Your task to perform on an android device: Search for seafood restaurants on Google Maps Image 0: 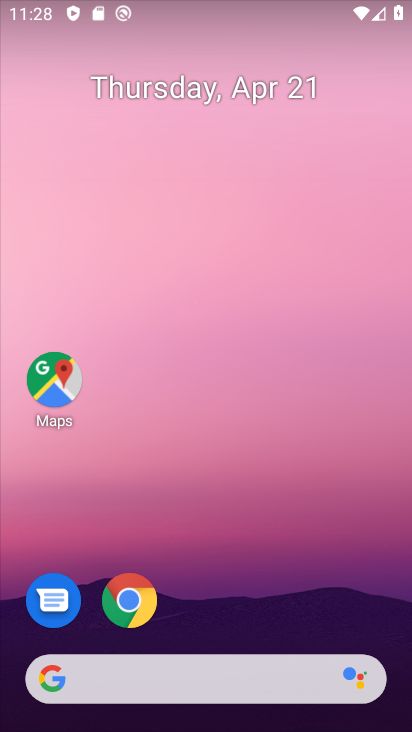
Step 0: click (66, 389)
Your task to perform on an android device: Search for seafood restaurants on Google Maps Image 1: 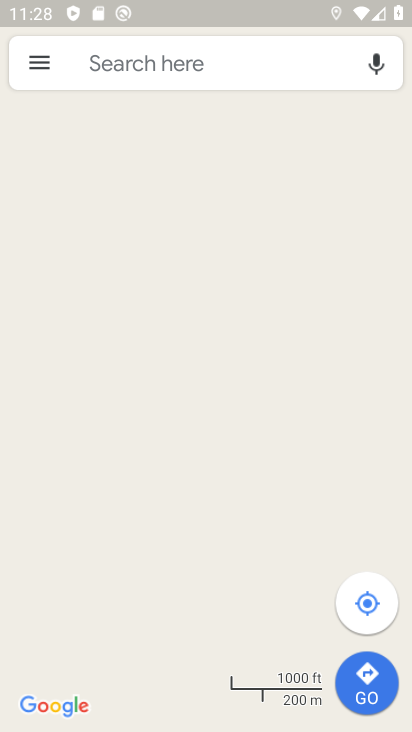
Step 1: click (233, 64)
Your task to perform on an android device: Search for seafood restaurants on Google Maps Image 2: 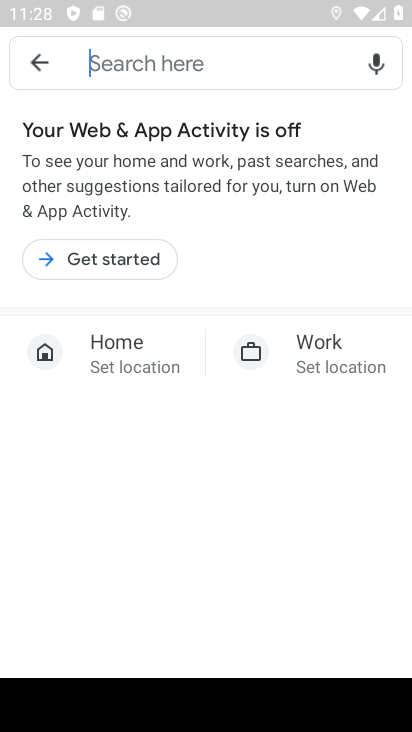
Step 2: type "seafood restaurants"
Your task to perform on an android device: Search for seafood restaurants on Google Maps Image 3: 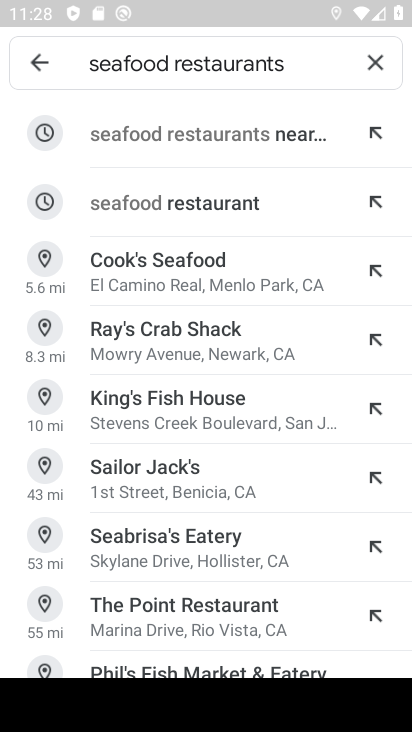
Step 3: click (161, 205)
Your task to perform on an android device: Search for seafood restaurants on Google Maps Image 4: 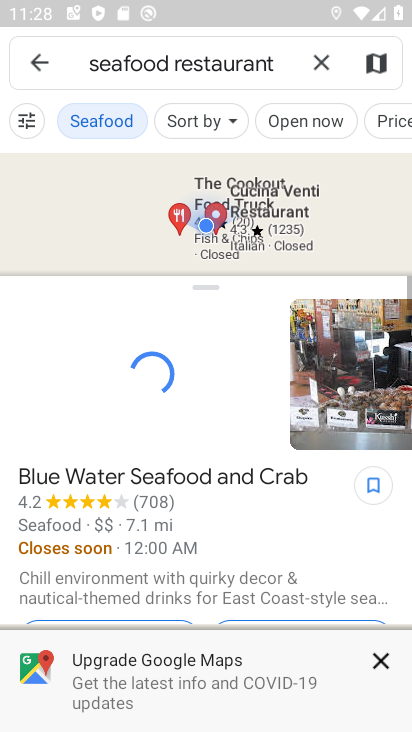
Step 4: task complete